Your task to perform on an android device: Search for pizza restaurants on Maps Image 0: 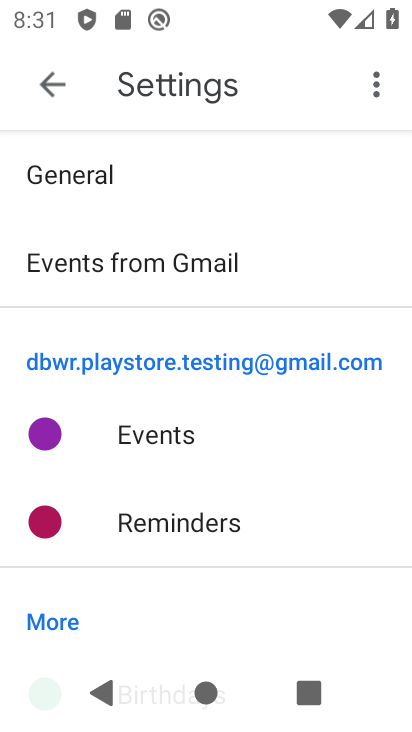
Step 0: press home button
Your task to perform on an android device: Search for pizza restaurants on Maps Image 1: 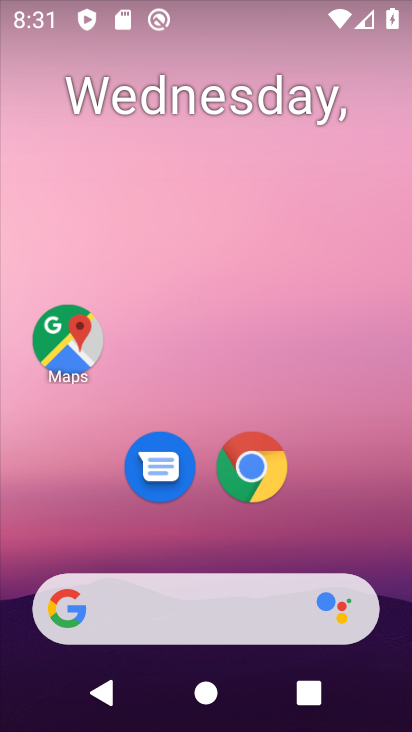
Step 1: drag from (227, 509) to (199, 227)
Your task to perform on an android device: Search for pizza restaurants on Maps Image 2: 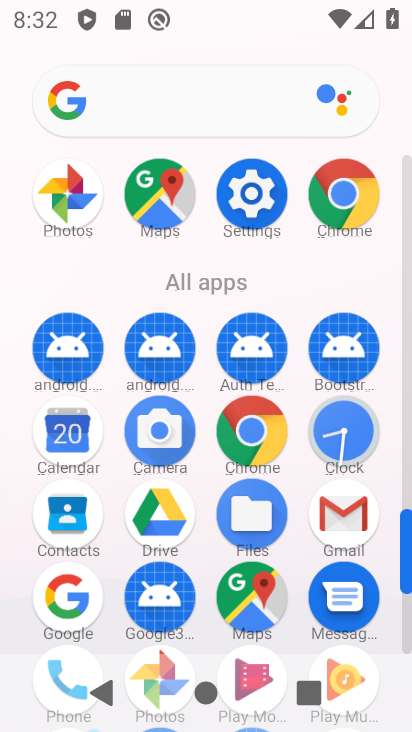
Step 2: click (149, 211)
Your task to perform on an android device: Search for pizza restaurants on Maps Image 3: 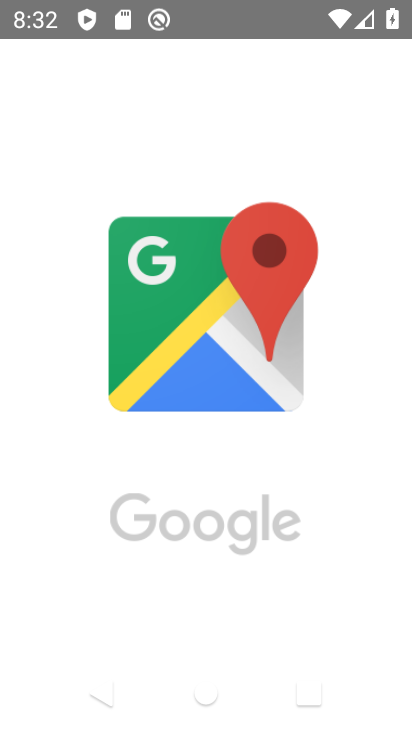
Step 3: click (149, 211)
Your task to perform on an android device: Search for pizza restaurants on Maps Image 4: 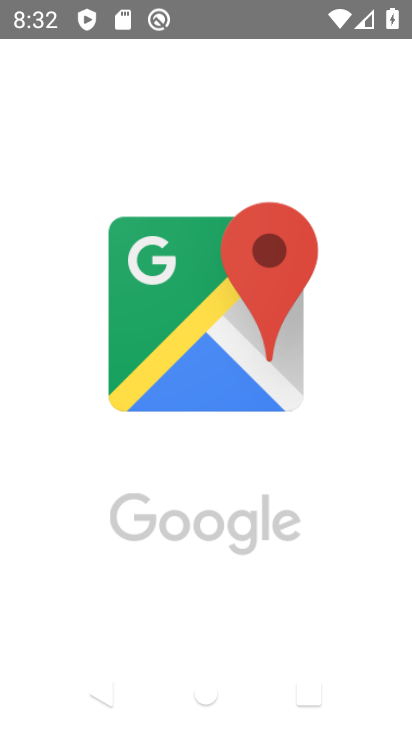
Step 4: click (191, 281)
Your task to perform on an android device: Search for pizza restaurants on Maps Image 5: 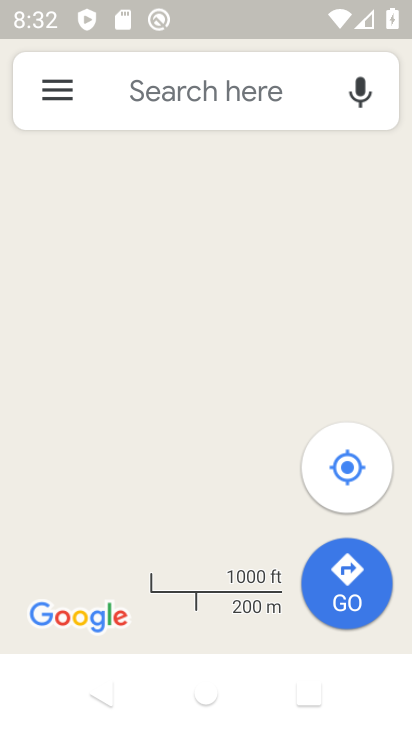
Step 5: click (155, 91)
Your task to perform on an android device: Search for pizza restaurants on Maps Image 6: 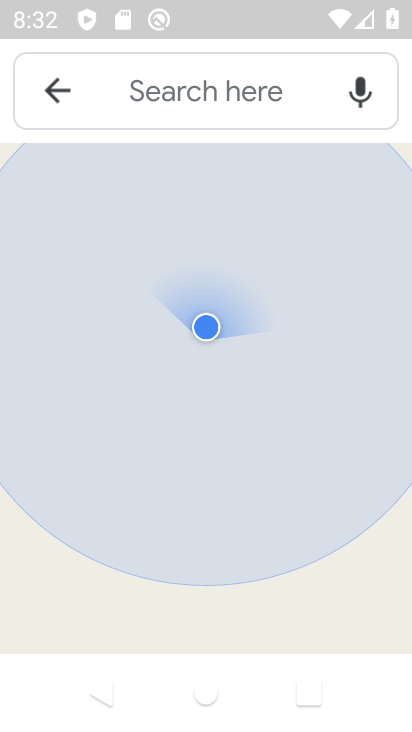
Step 6: click (155, 91)
Your task to perform on an android device: Search for pizza restaurants on Maps Image 7: 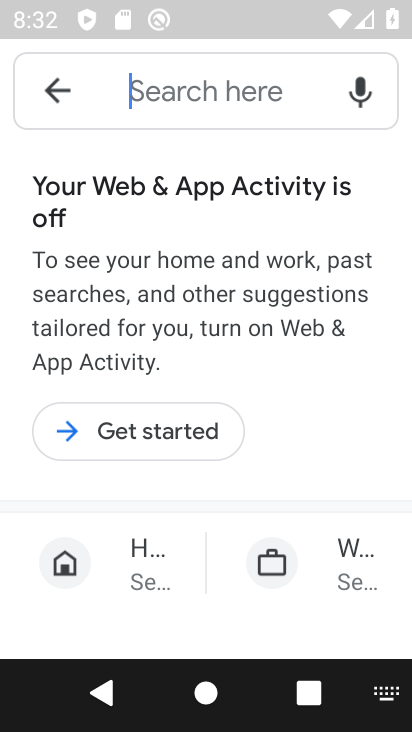
Step 7: click (155, 91)
Your task to perform on an android device: Search for pizza restaurants on Maps Image 8: 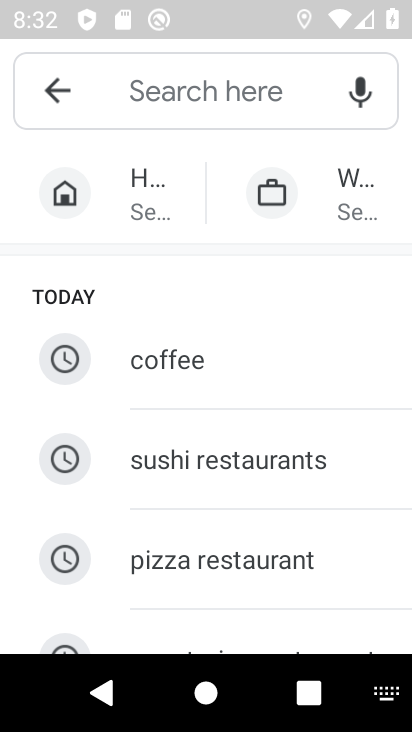
Step 8: type "pizza restaurants"
Your task to perform on an android device: Search for pizza restaurants on Maps Image 9: 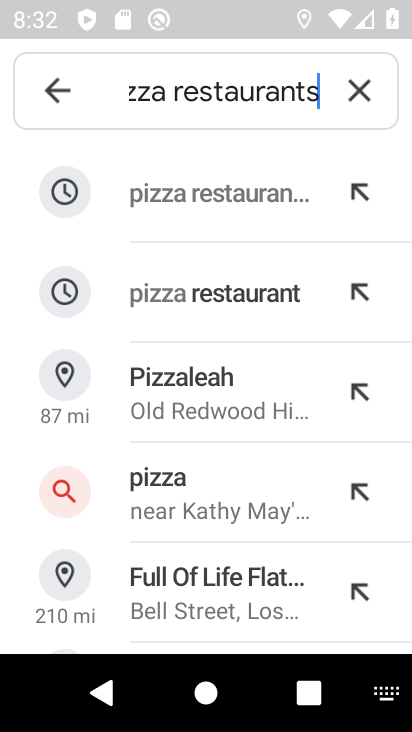
Step 9: click (260, 293)
Your task to perform on an android device: Search for pizza restaurants on Maps Image 10: 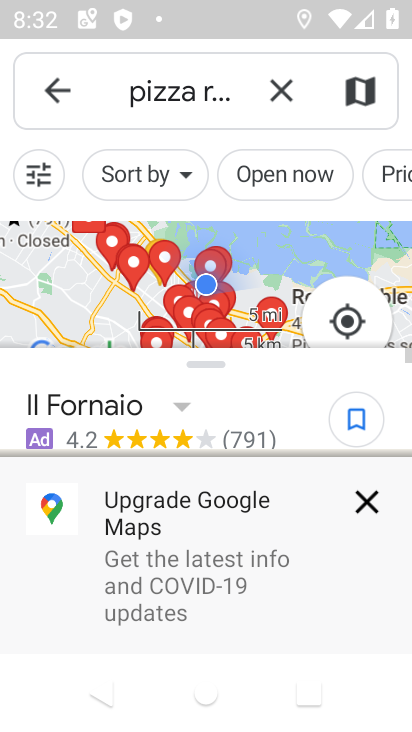
Step 10: task complete